Your task to perform on an android device: Turn off the flashlight Image 0: 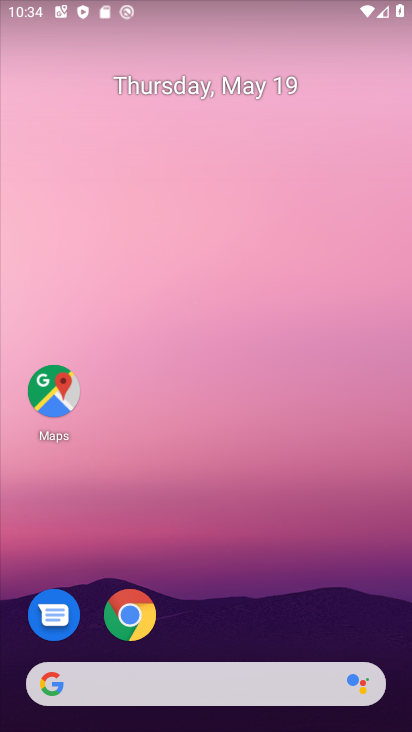
Step 0: drag from (191, 3) to (231, 727)
Your task to perform on an android device: Turn off the flashlight Image 1: 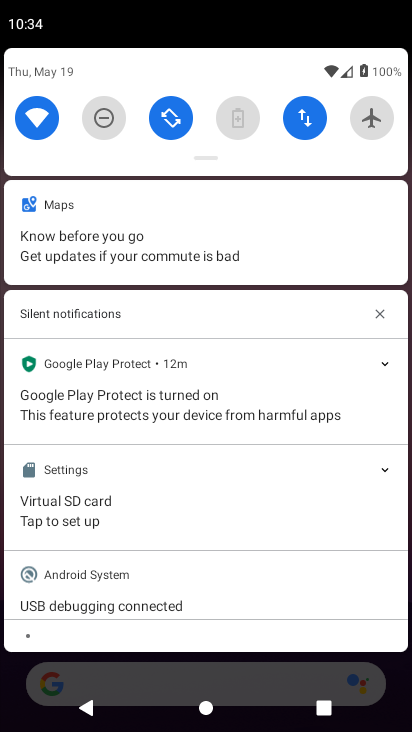
Step 1: task complete